Your task to perform on an android device: delete a single message in the gmail app Image 0: 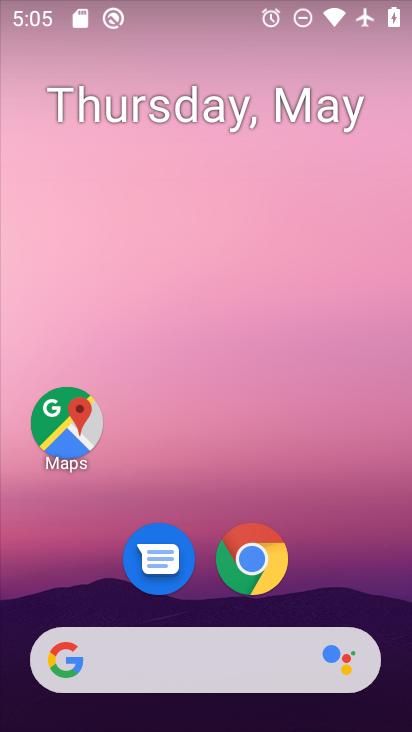
Step 0: drag from (274, 294) to (193, 31)
Your task to perform on an android device: delete a single message in the gmail app Image 1: 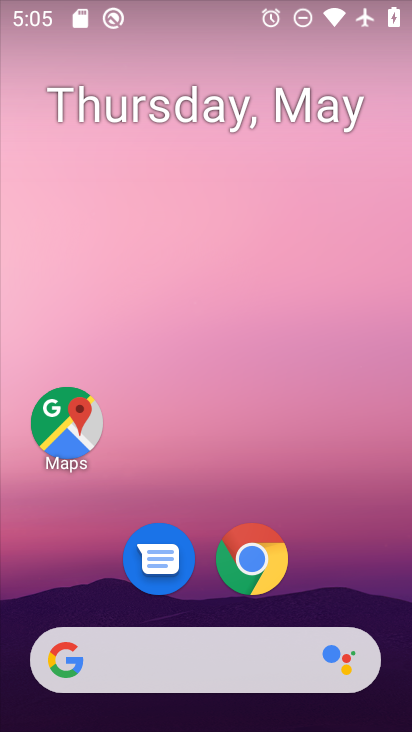
Step 1: drag from (319, 514) to (200, 6)
Your task to perform on an android device: delete a single message in the gmail app Image 2: 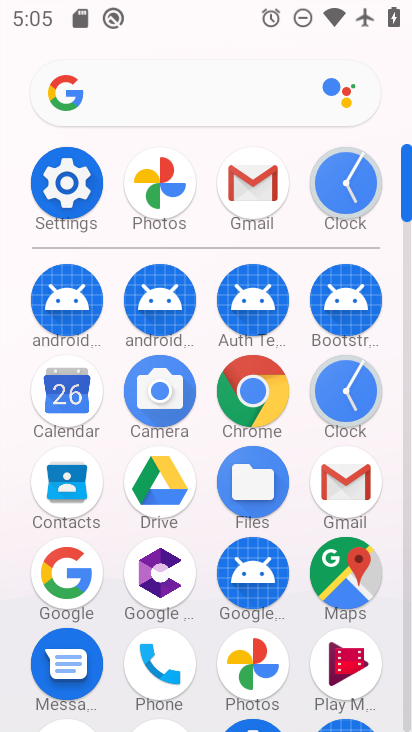
Step 2: click (257, 200)
Your task to perform on an android device: delete a single message in the gmail app Image 3: 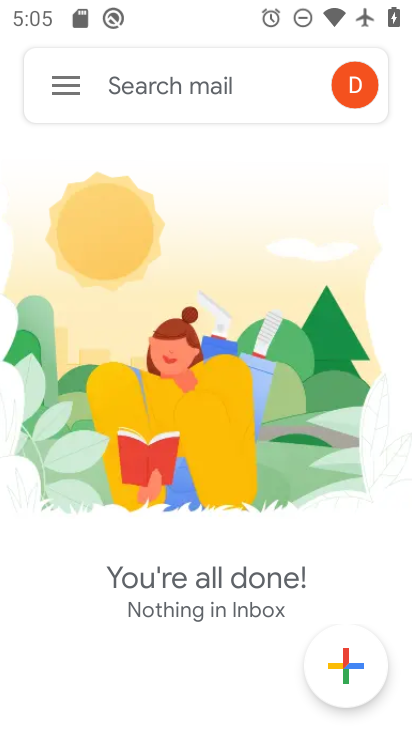
Step 3: click (62, 85)
Your task to perform on an android device: delete a single message in the gmail app Image 4: 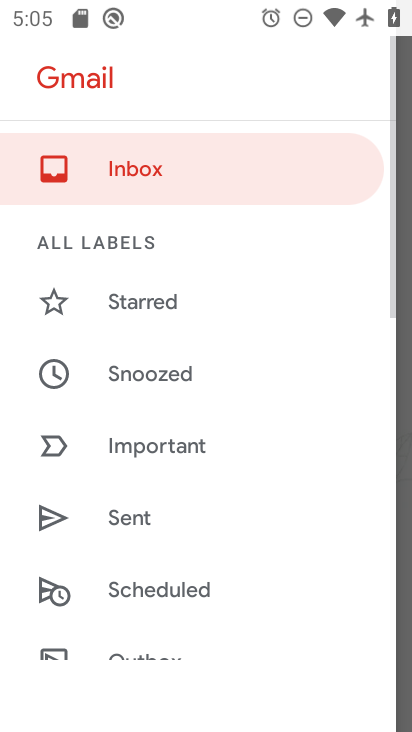
Step 4: drag from (227, 528) to (197, 79)
Your task to perform on an android device: delete a single message in the gmail app Image 5: 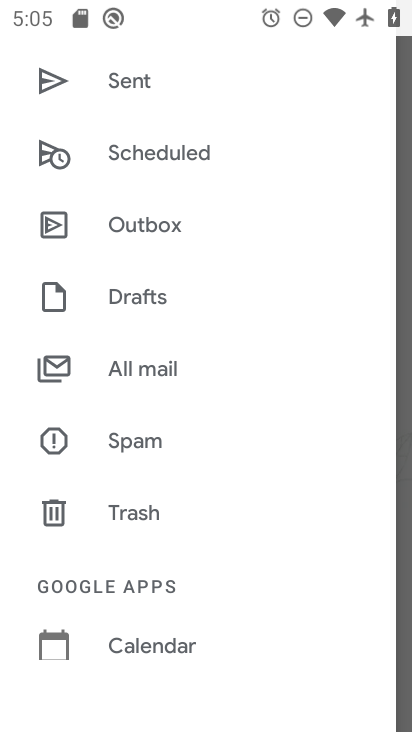
Step 5: click (186, 379)
Your task to perform on an android device: delete a single message in the gmail app Image 6: 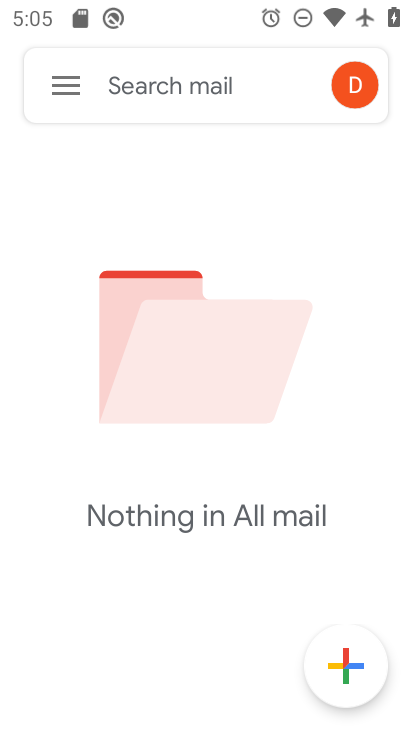
Step 6: task complete